Your task to perform on an android device: Search for Mexican restaurants on Maps Image 0: 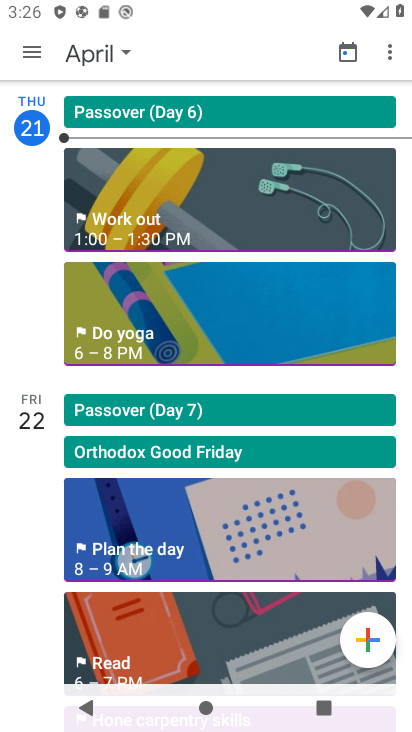
Step 0: press home button
Your task to perform on an android device: Search for Mexican restaurants on Maps Image 1: 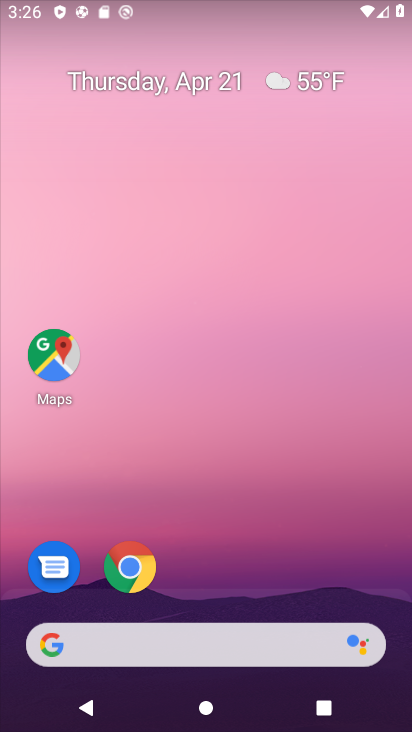
Step 1: click (48, 355)
Your task to perform on an android device: Search for Mexican restaurants on Maps Image 2: 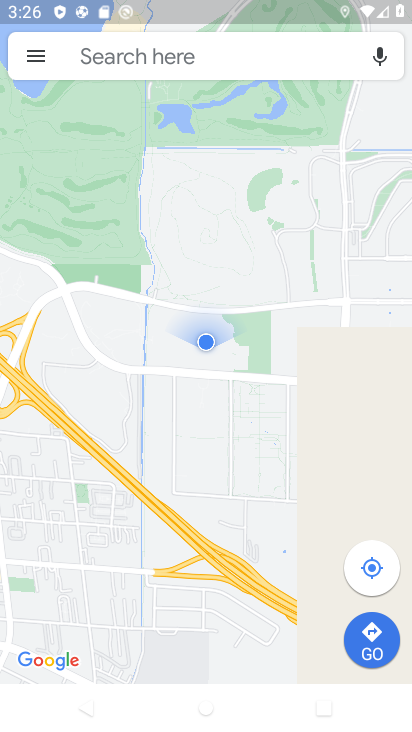
Step 2: click (214, 49)
Your task to perform on an android device: Search for Mexican restaurants on Maps Image 3: 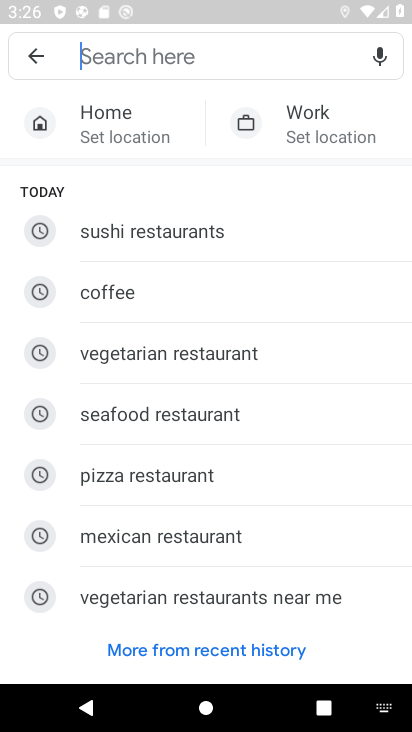
Step 3: click (197, 528)
Your task to perform on an android device: Search for Mexican restaurants on Maps Image 4: 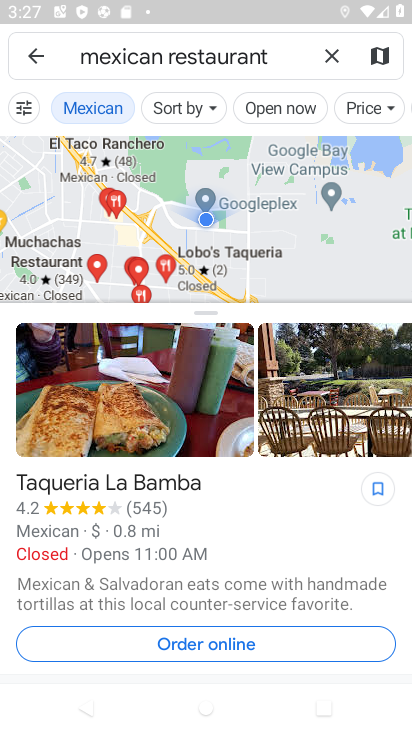
Step 4: task complete